Your task to perform on an android device: delete a single message in the gmail app Image 0: 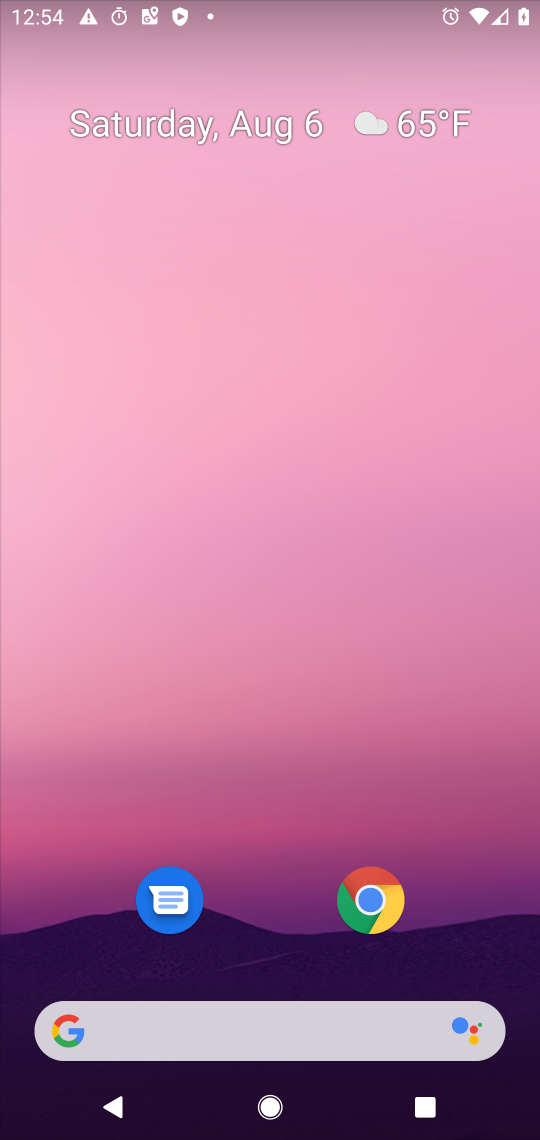
Step 0: drag from (280, 945) to (268, 251)
Your task to perform on an android device: delete a single message in the gmail app Image 1: 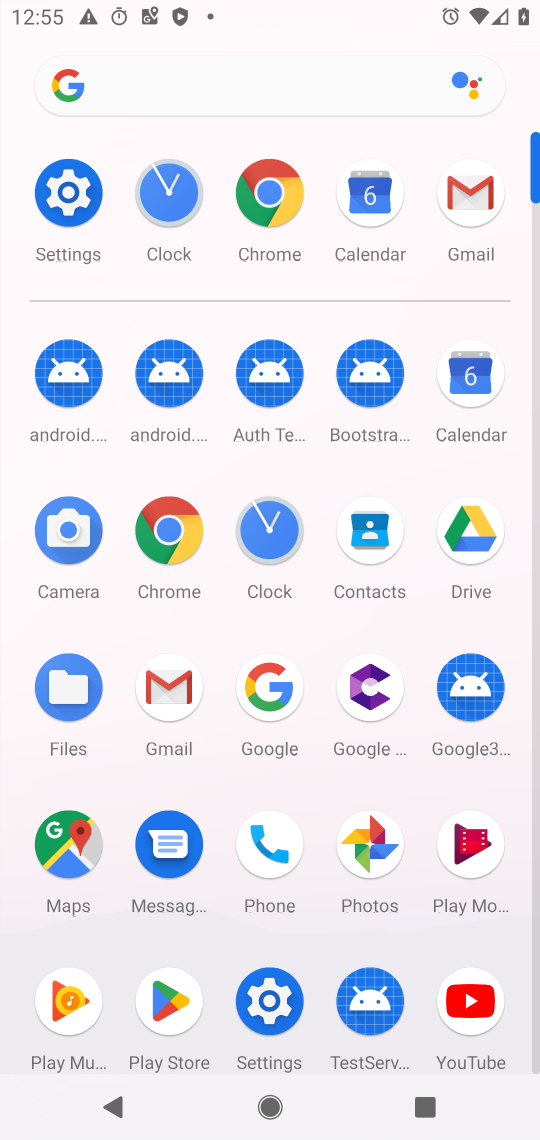
Step 1: click (153, 681)
Your task to perform on an android device: delete a single message in the gmail app Image 2: 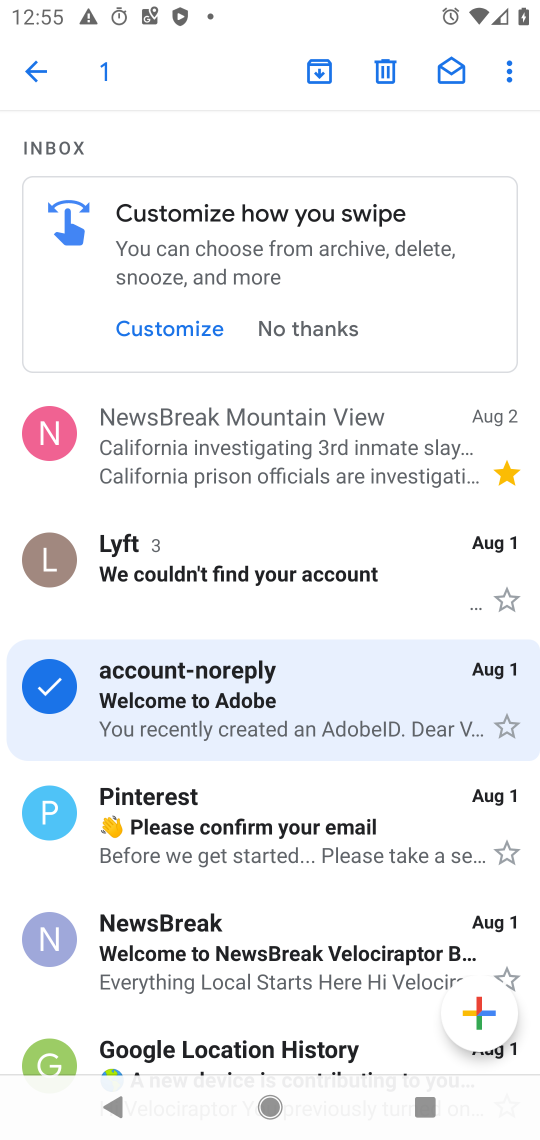
Step 2: click (382, 71)
Your task to perform on an android device: delete a single message in the gmail app Image 3: 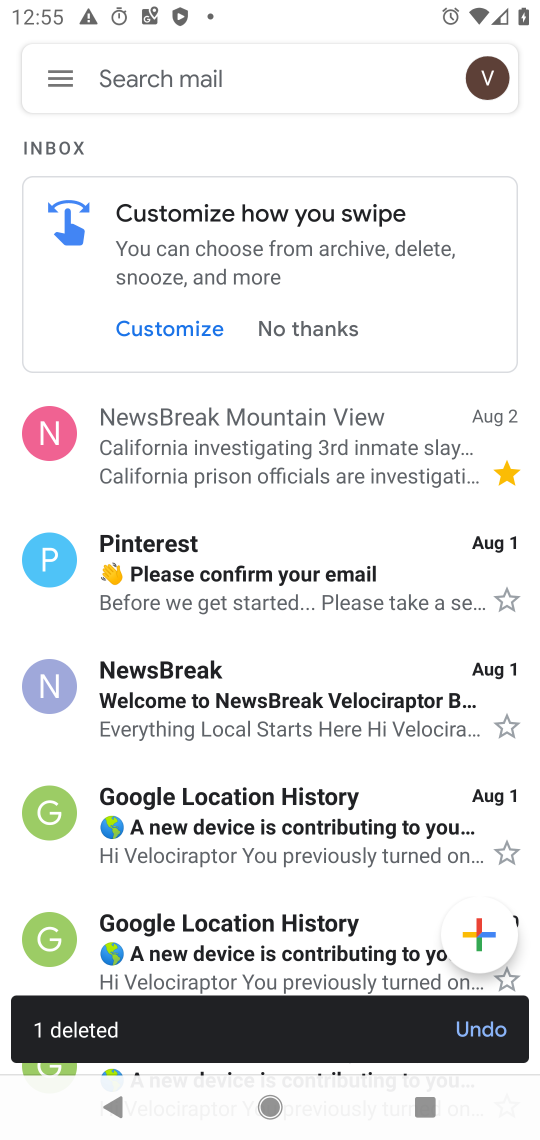
Step 3: task complete